Your task to perform on an android device: Open calendar and show me the second week of next month Image 0: 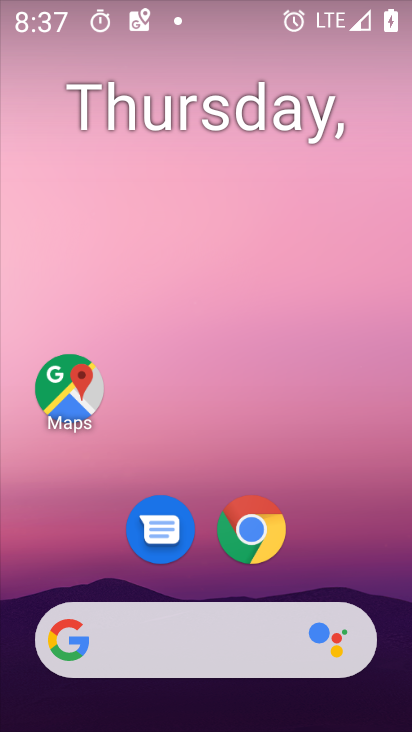
Step 0: drag from (359, 561) to (385, 157)
Your task to perform on an android device: Open calendar and show me the second week of next month Image 1: 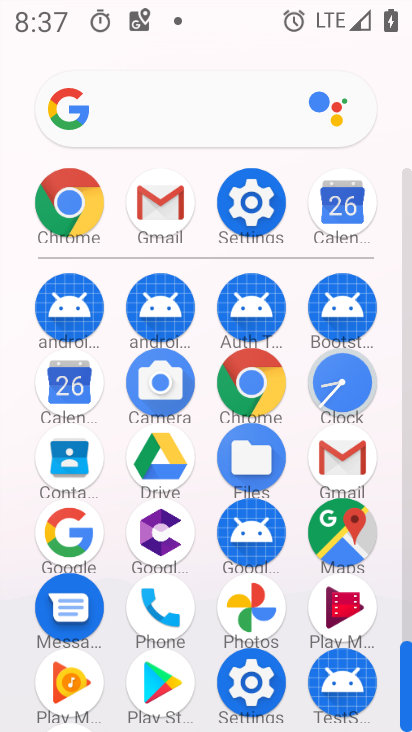
Step 1: click (344, 387)
Your task to perform on an android device: Open calendar and show me the second week of next month Image 2: 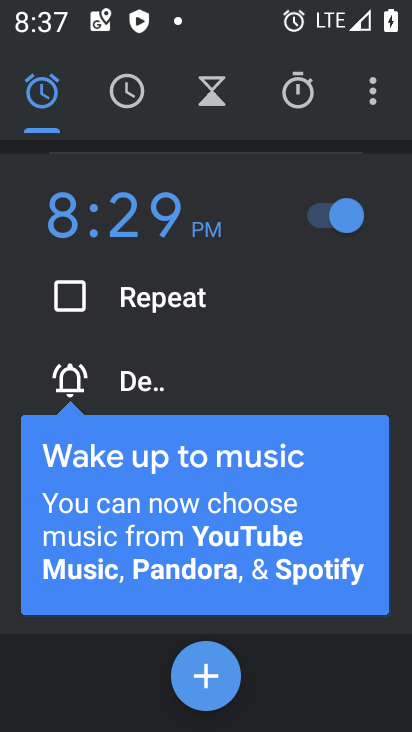
Step 2: click (371, 101)
Your task to perform on an android device: Open calendar and show me the second week of next month Image 3: 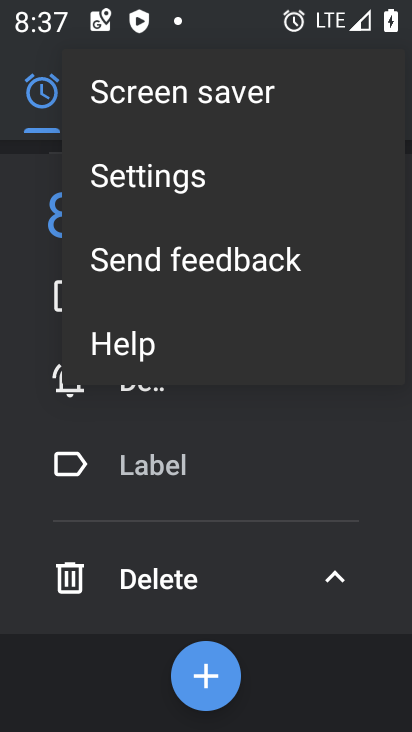
Step 3: click (208, 180)
Your task to perform on an android device: Open calendar and show me the second week of next month Image 4: 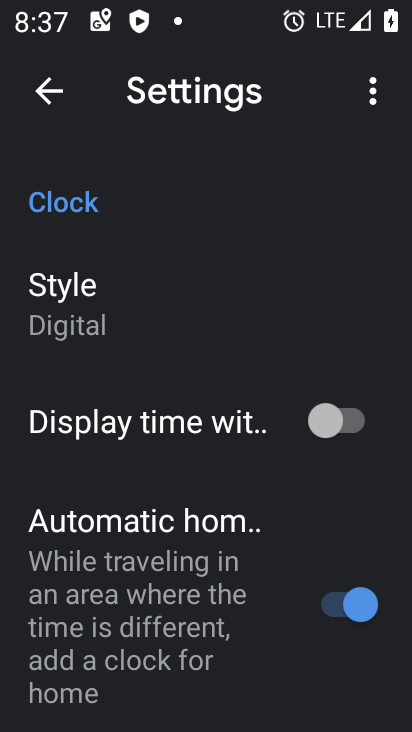
Step 4: drag from (258, 548) to (273, 399)
Your task to perform on an android device: Open calendar and show me the second week of next month Image 5: 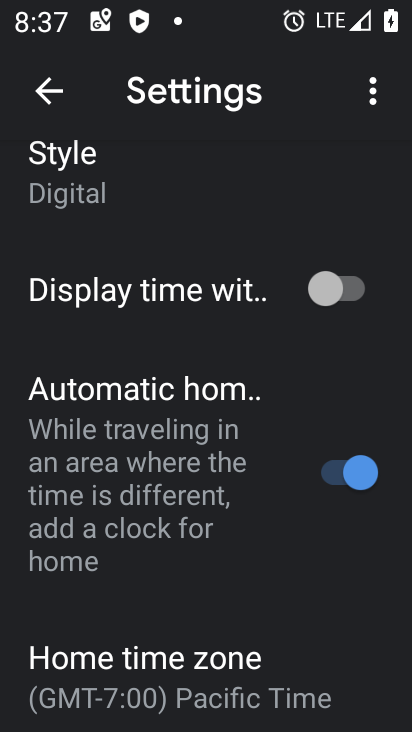
Step 5: drag from (252, 544) to (274, 384)
Your task to perform on an android device: Open calendar and show me the second week of next month Image 6: 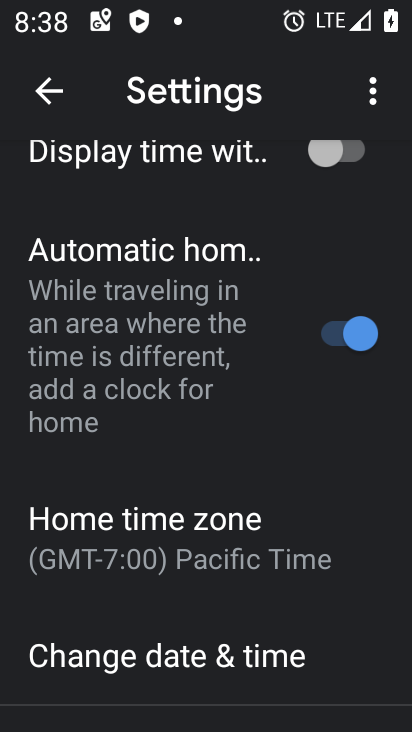
Step 6: drag from (266, 588) to (275, 418)
Your task to perform on an android device: Open calendar and show me the second week of next month Image 7: 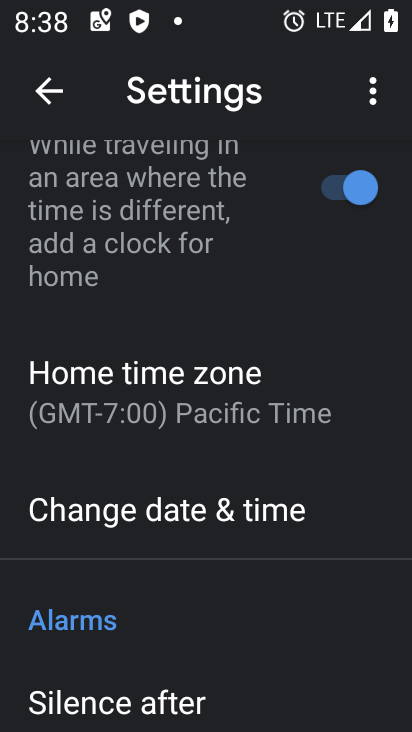
Step 7: drag from (262, 624) to (275, 444)
Your task to perform on an android device: Open calendar and show me the second week of next month Image 8: 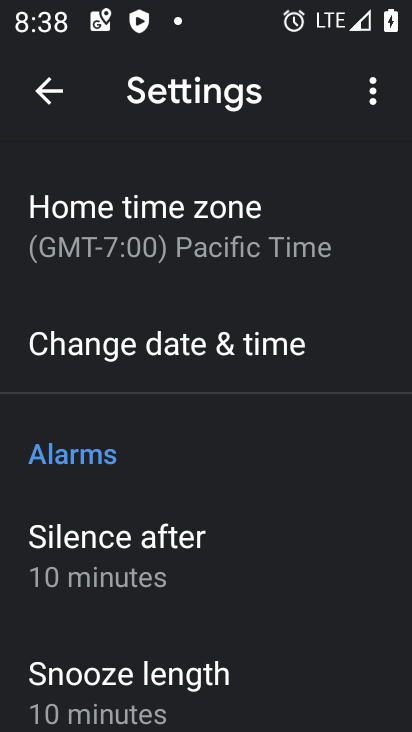
Step 8: drag from (333, 558) to (342, 327)
Your task to perform on an android device: Open calendar and show me the second week of next month Image 9: 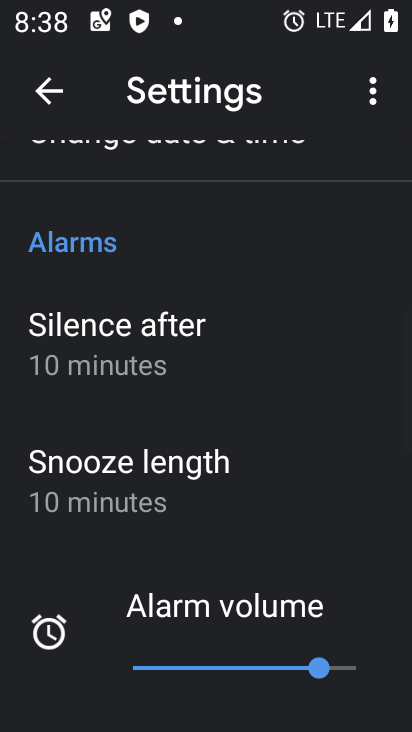
Step 9: drag from (342, 260) to (341, 400)
Your task to perform on an android device: Open calendar and show me the second week of next month Image 10: 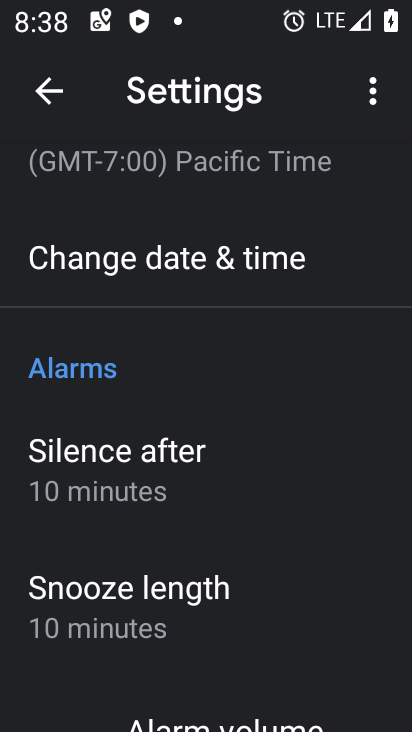
Step 10: drag from (343, 258) to (325, 438)
Your task to perform on an android device: Open calendar and show me the second week of next month Image 11: 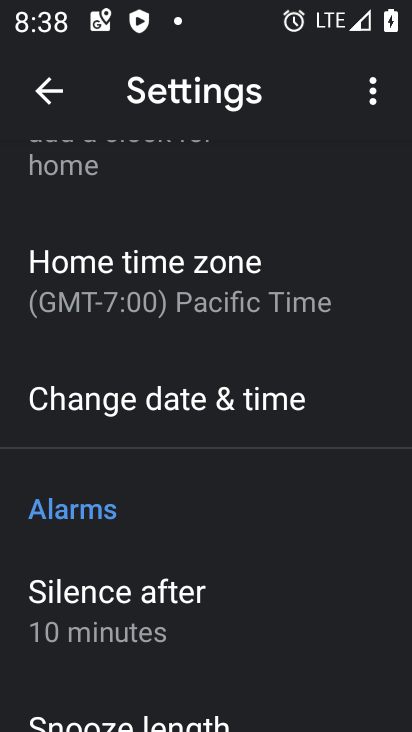
Step 11: drag from (326, 192) to (317, 391)
Your task to perform on an android device: Open calendar and show me the second week of next month Image 12: 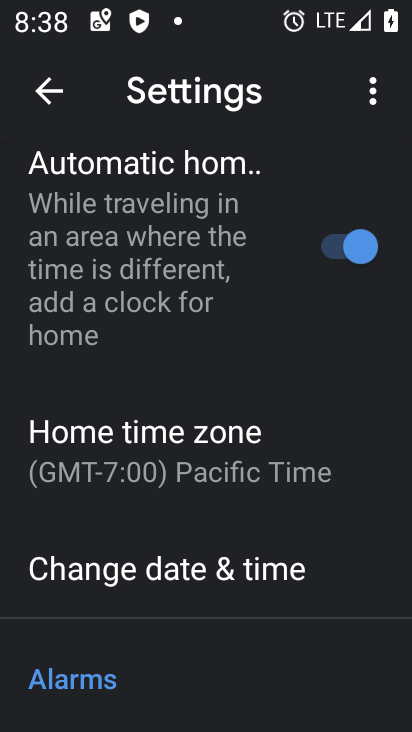
Step 12: drag from (302, 197) to (304, 396)
Your task to perform on an android device: Open calendar and show me the second week of next month Image 13: 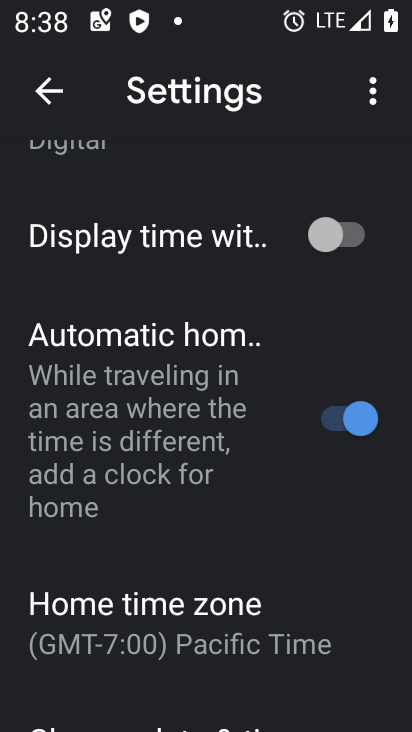
Step 13: drag from (274, 187) to (270, 353)
Your task to perform on an android device: Open calendar and show me the second week of next month Image 14: 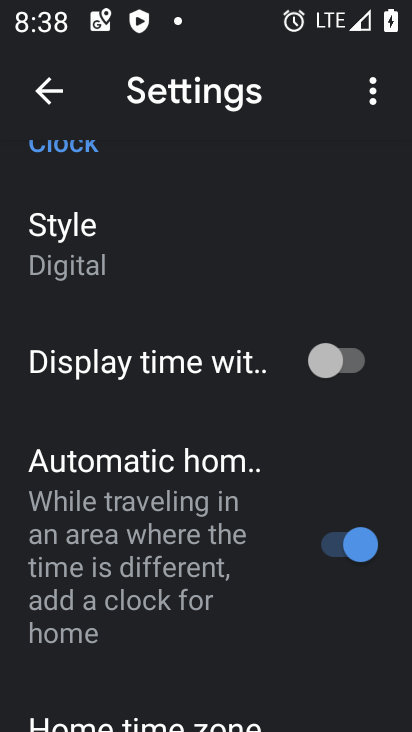
Step 14: click (338, 365)
Your task to perform on an android device: Open calendar and show me the second week of next month Image 15: 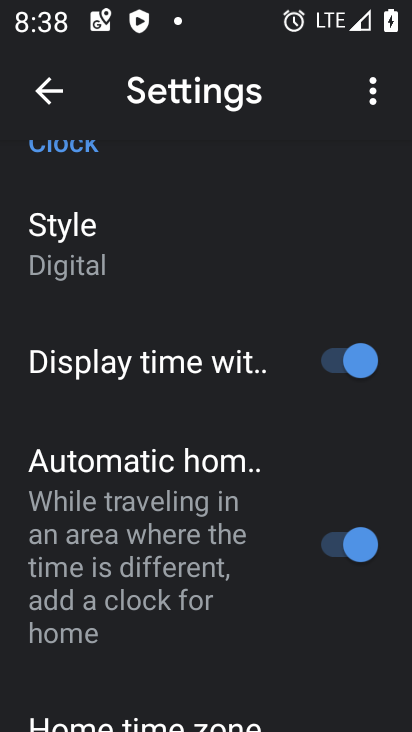
Step 15: task complete